Your task to perform on an android device: turn on location history Image 0: 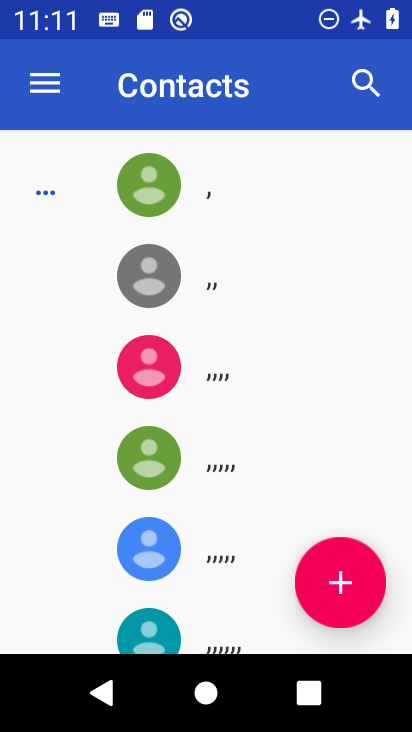
Step 0: press home button
Your task to perform on an android device: turn on location history Image 1: 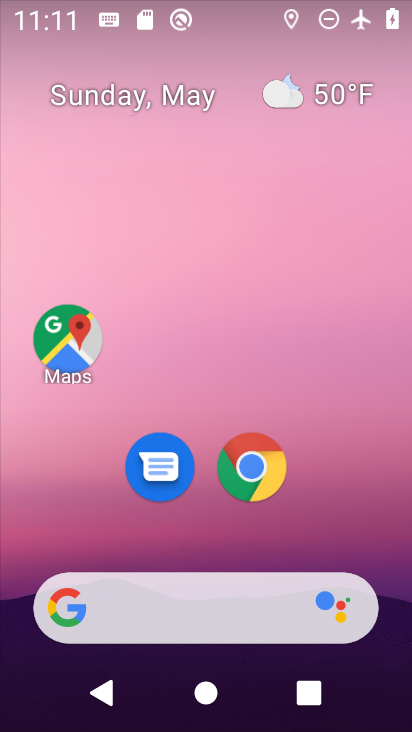
Step 1: drag from (212, 524) to (200, 339)
Your task to perform on an android device: turn on location history Image 2: 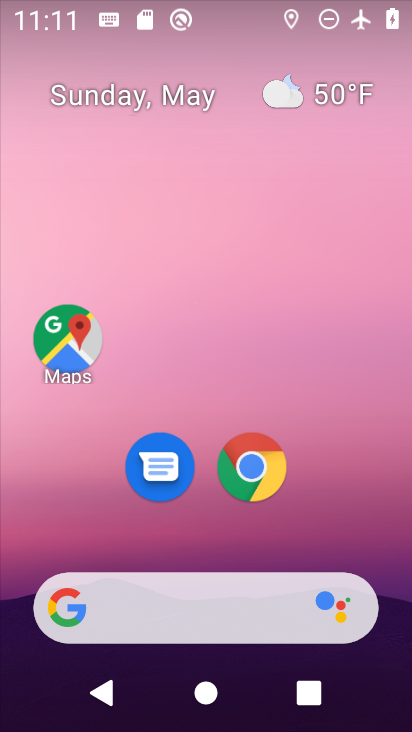
Step 2: drag from (222, 548) to (168, 0)
Your task to perform on an android device: turn on location history Image 3: 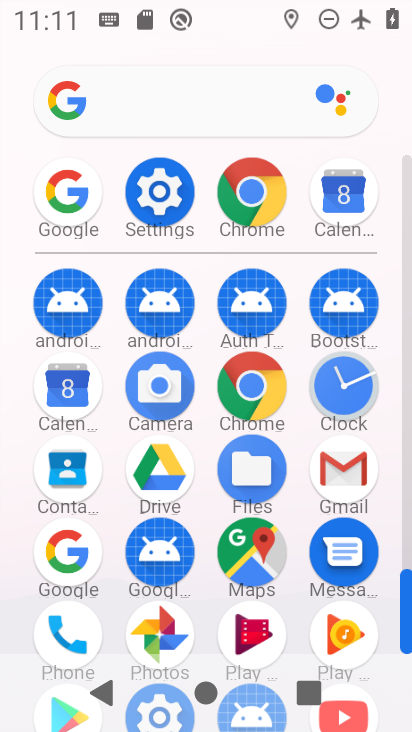
Step 3: click (158, 194)
Your task to perform on an android device: turn on location history Image 4: 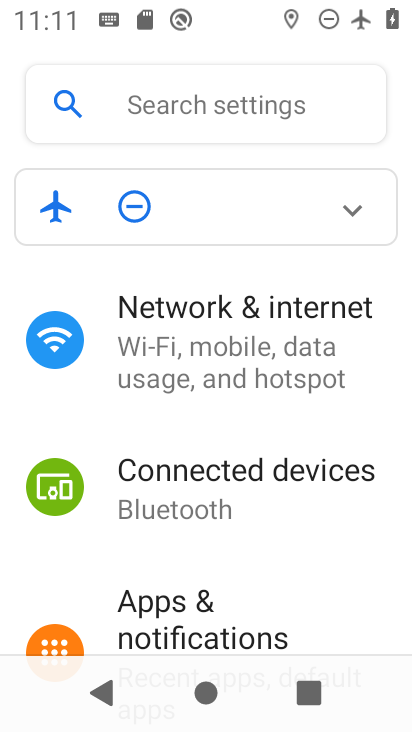
Step 4: drag from (289, 469) to (269, 157)
Your task to perform on an android device: turn on location history Image 5: 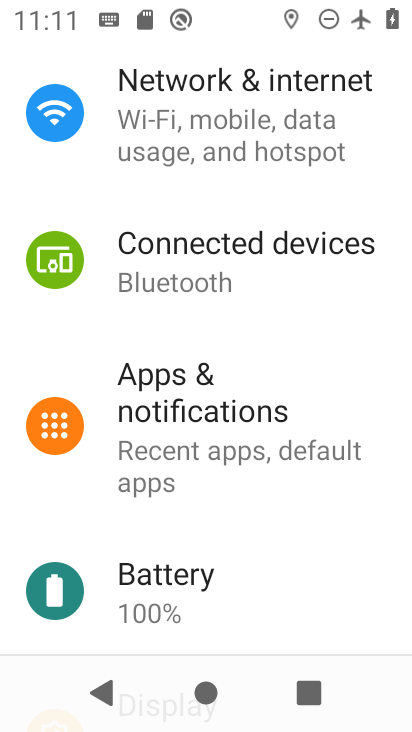
Step 5: drag from (233, 610) to (258, 203)
Your task to perform on an android device: turn on location history Image 6: 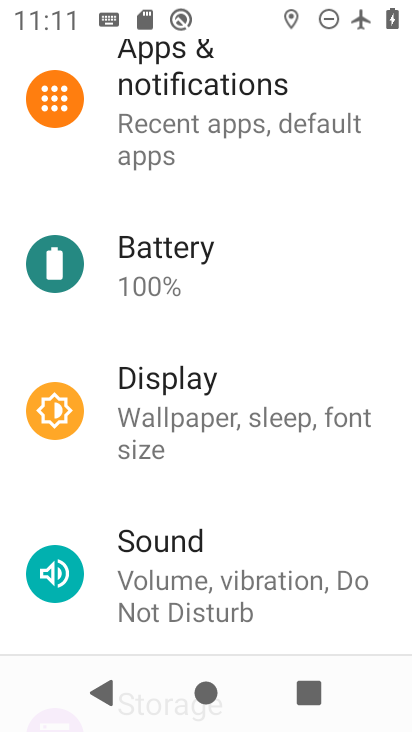
Step 6: drag from (193, 560) to (172, 216)
Your task to perform on an android device: turn on location history Image 7: 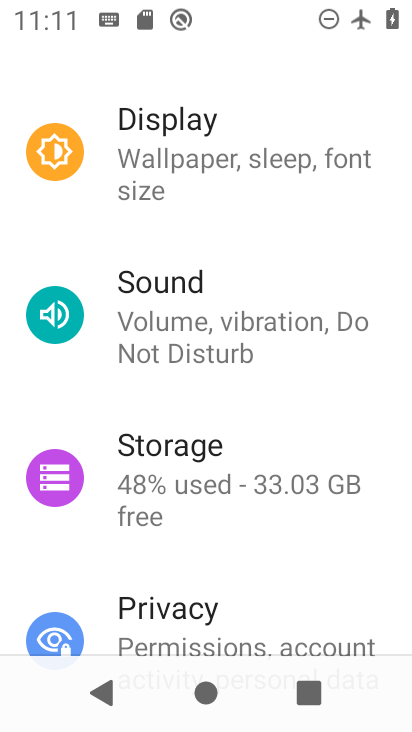
Step 7: drag from (163, 592) to (172, 331)
Your task to perform on an android device: turn on location history Image 8: 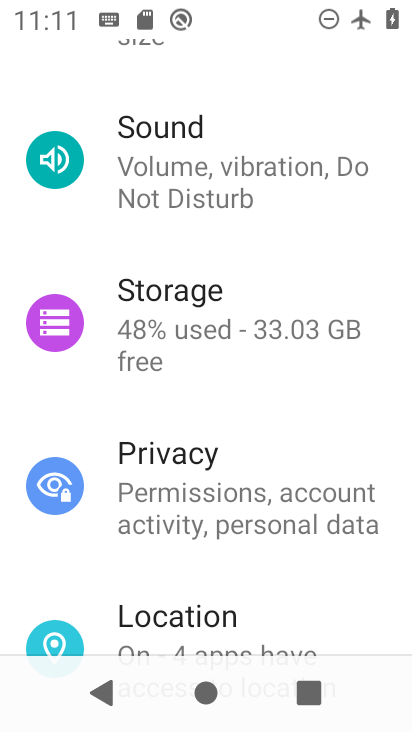
Step 8: click (155, 620)
Your task to perform on an android device: turn on location history Image 9: 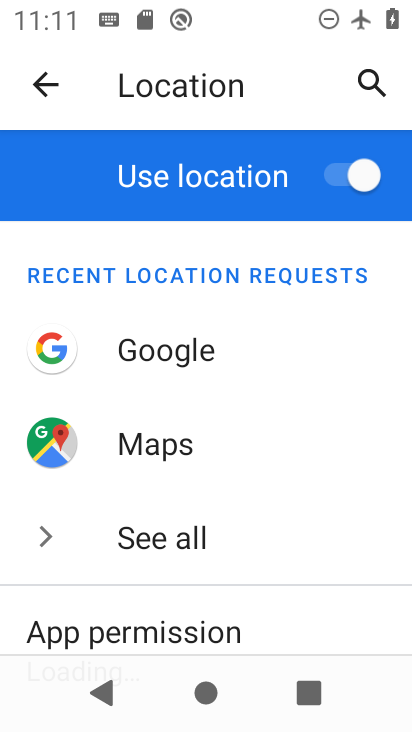
Step 9: drag from (222, 555) to (241, 100)
Your task to perform on an android device: turn on location history Image 10: 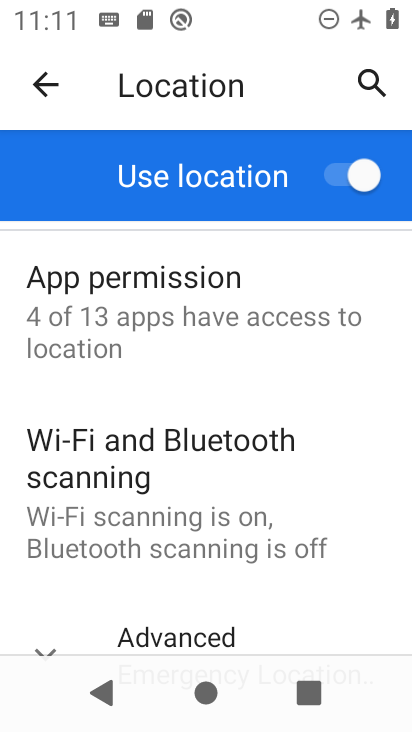
Step 10: drag from (280, 568) to (270, 348)
Your task to perform on an android device: turn on location history Image 11: 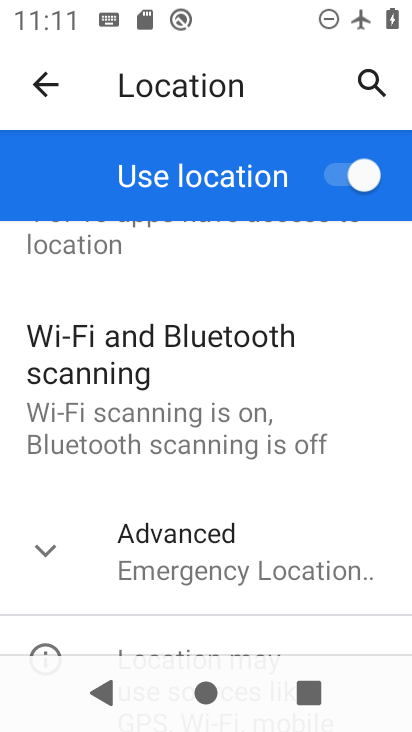
Step 11: click (226, 537)
Your task to perform on an android device: turn on location history Image 12: 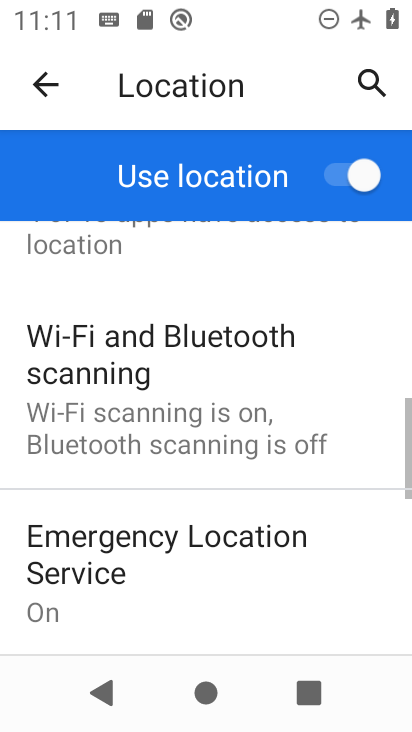
Step 12: drag from (243, 593) to (256, 351)
Your task to perform on an android device: turn on location history Image 13: 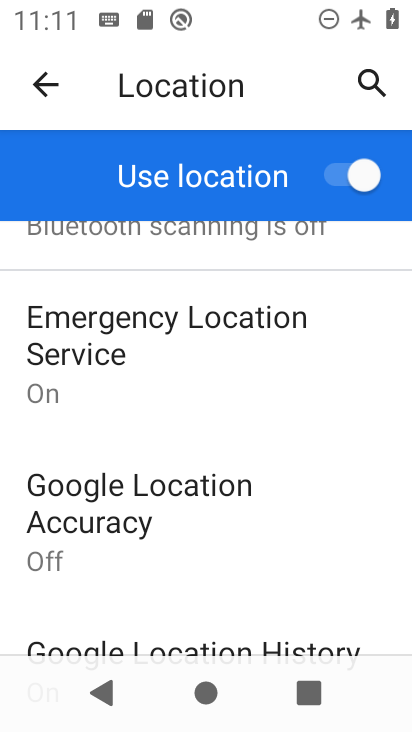
Step 13: drag from (162, 551) to (193, 369)
Your task to perform on an android device: turn on location history Image 14: 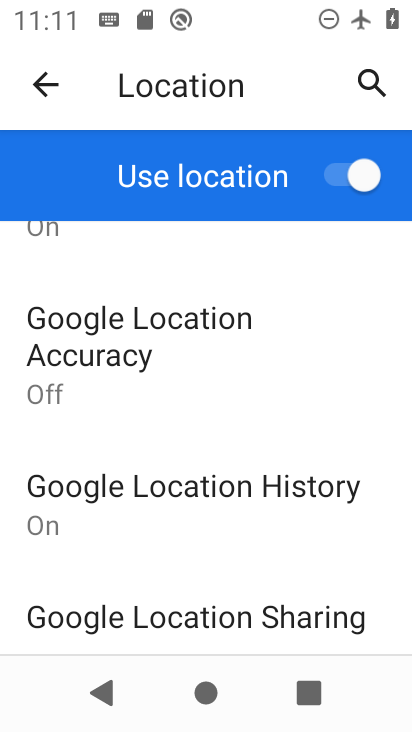
Step 14: click (194, 474)
Your task to perform on an android device: turn on location history Image 15: 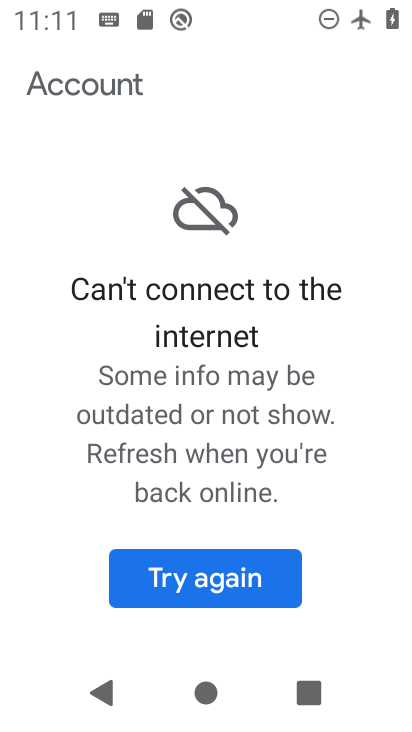
Step 15: task complete